Your task to perform on an android device: Go to display settings Image 0: 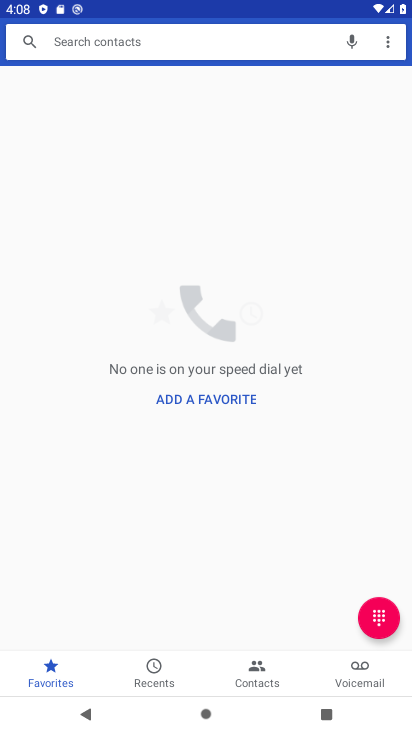
Step 0: press home button
Your task to perform on an android device: Go to display settings Image 1: 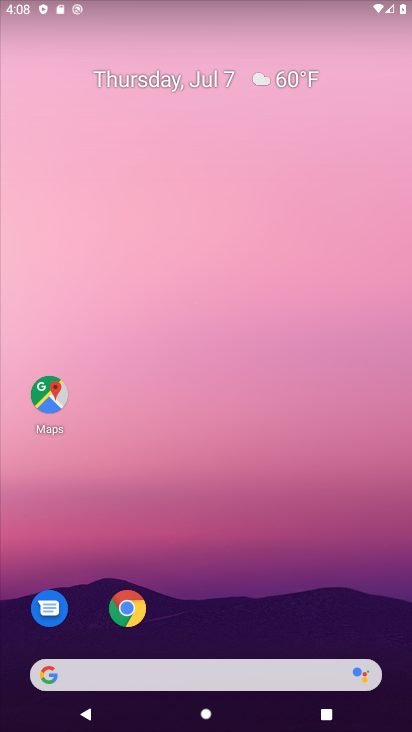
Step 1: drag from (296, 532) to (265, 136)
Your task to perform on an android device: Go to display settings Image 2: 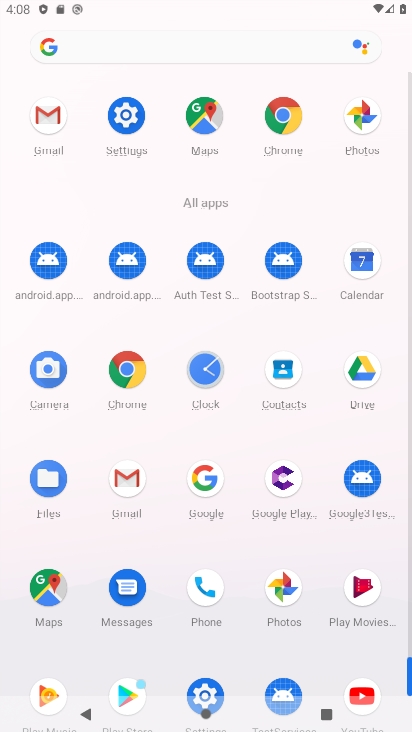
Step 2: click (126, 123)
Your task to perform on an android device: Go to display settings Image 3: 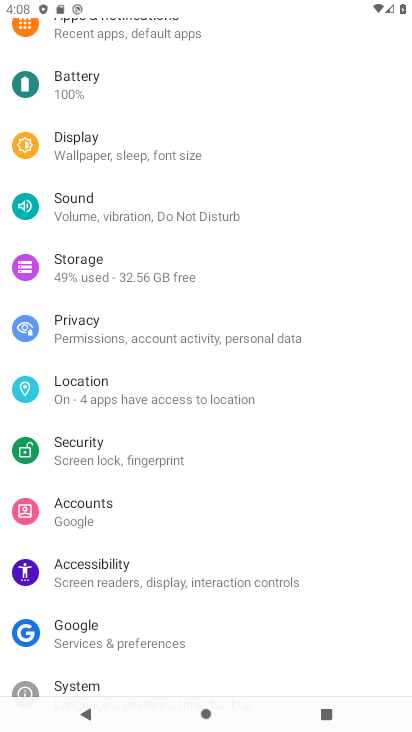
Step 3: click (101, 148)
Your task to perform on an android device: Go to display settings Image 4: 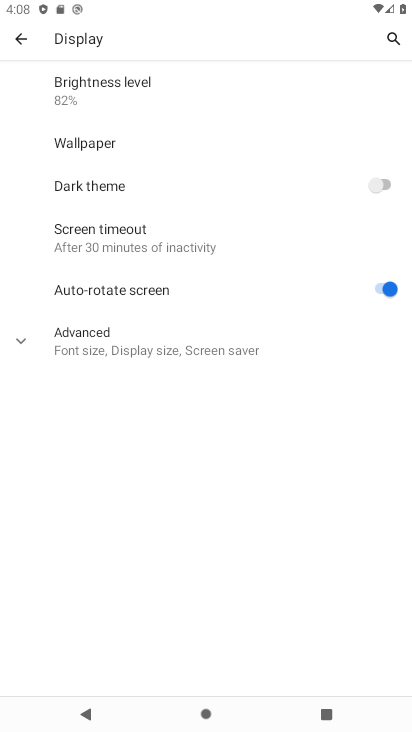
Step 4: task complete